Your task to perform on an android device: change the clock display to show seconds Image 0: 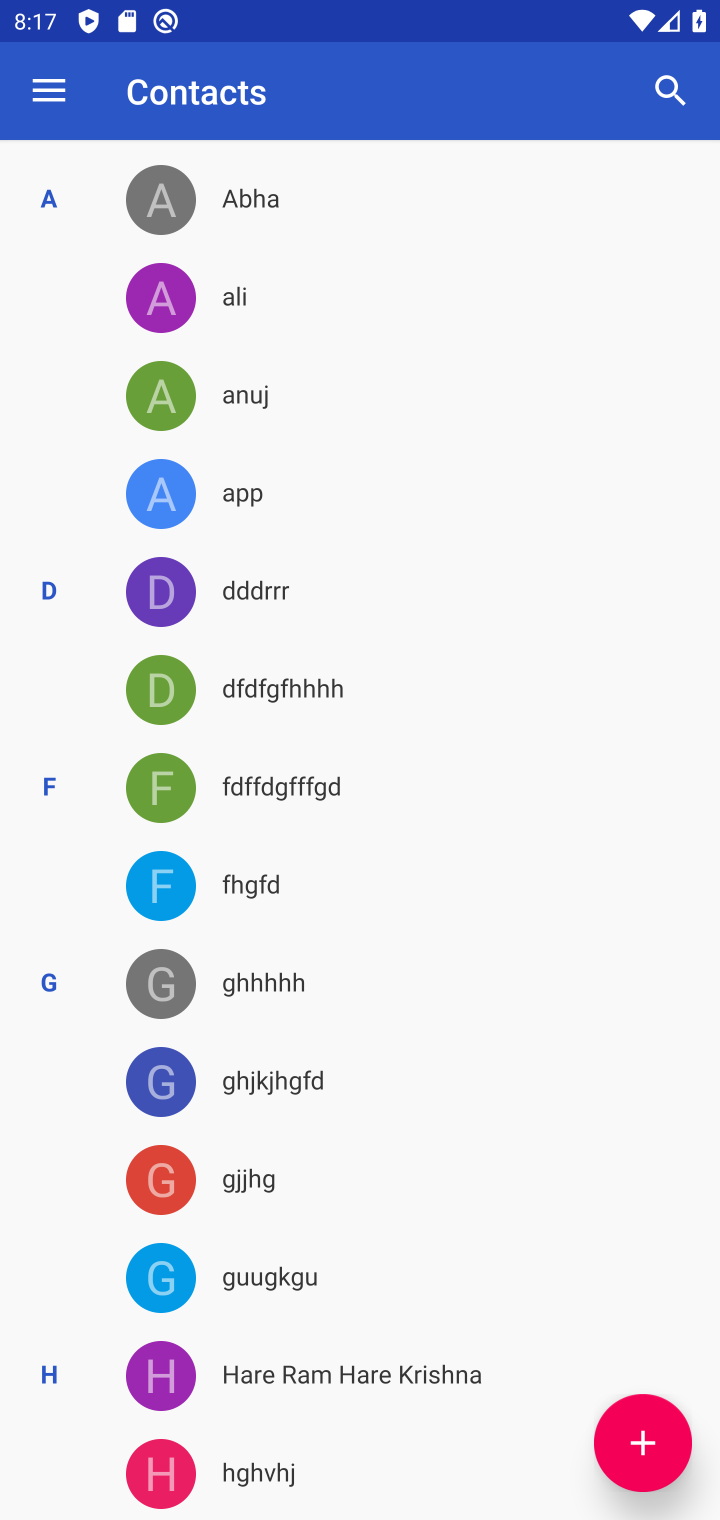
Step 0: press home button
Your task to perform on an android device: change the clock display to show seconds Image 1: 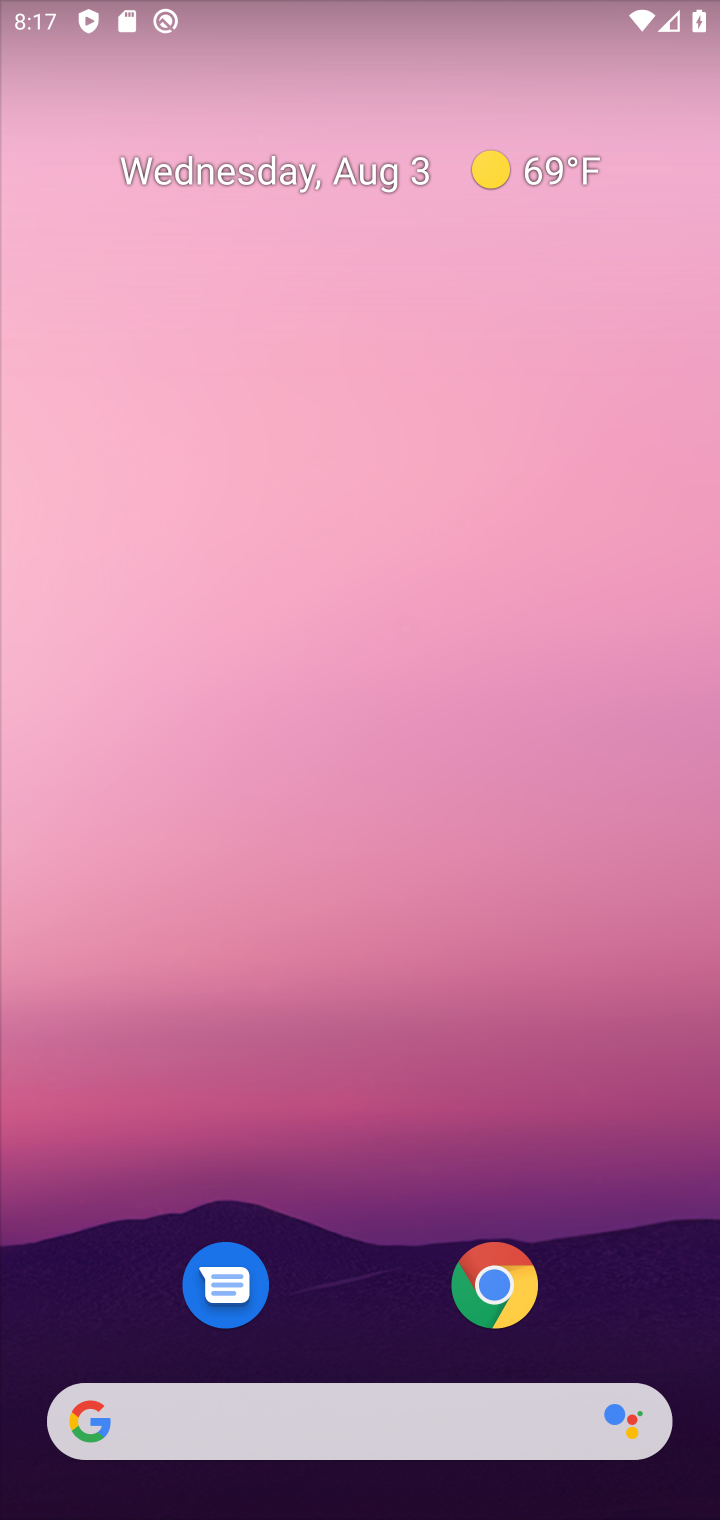
Step 1: drag from (624, 1288) to (587, 364)
Your task to perform on an android device: change the clock display to show seconds Image 2: 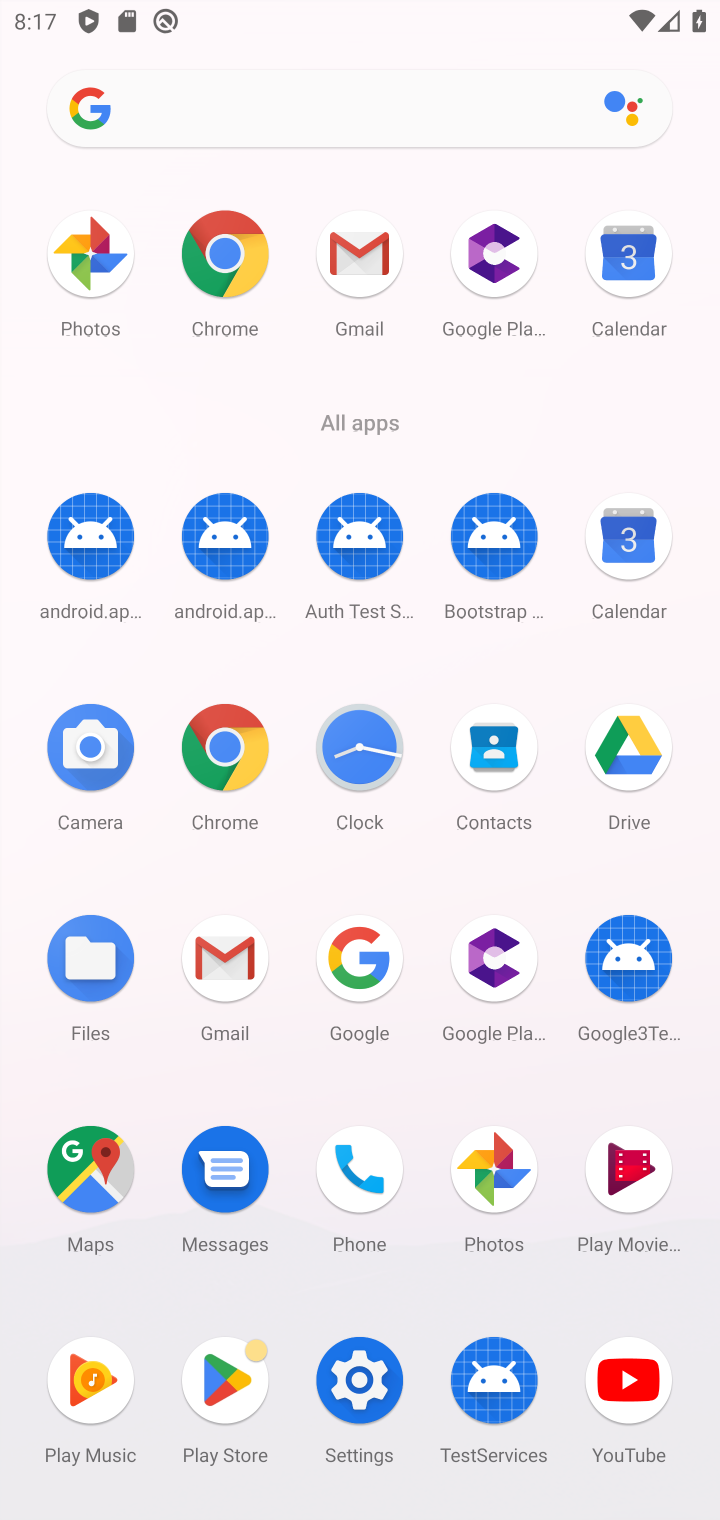
Step 2: click (371, 756)
Your task to perform on an android device: change the clock display to show seconds Image 3: 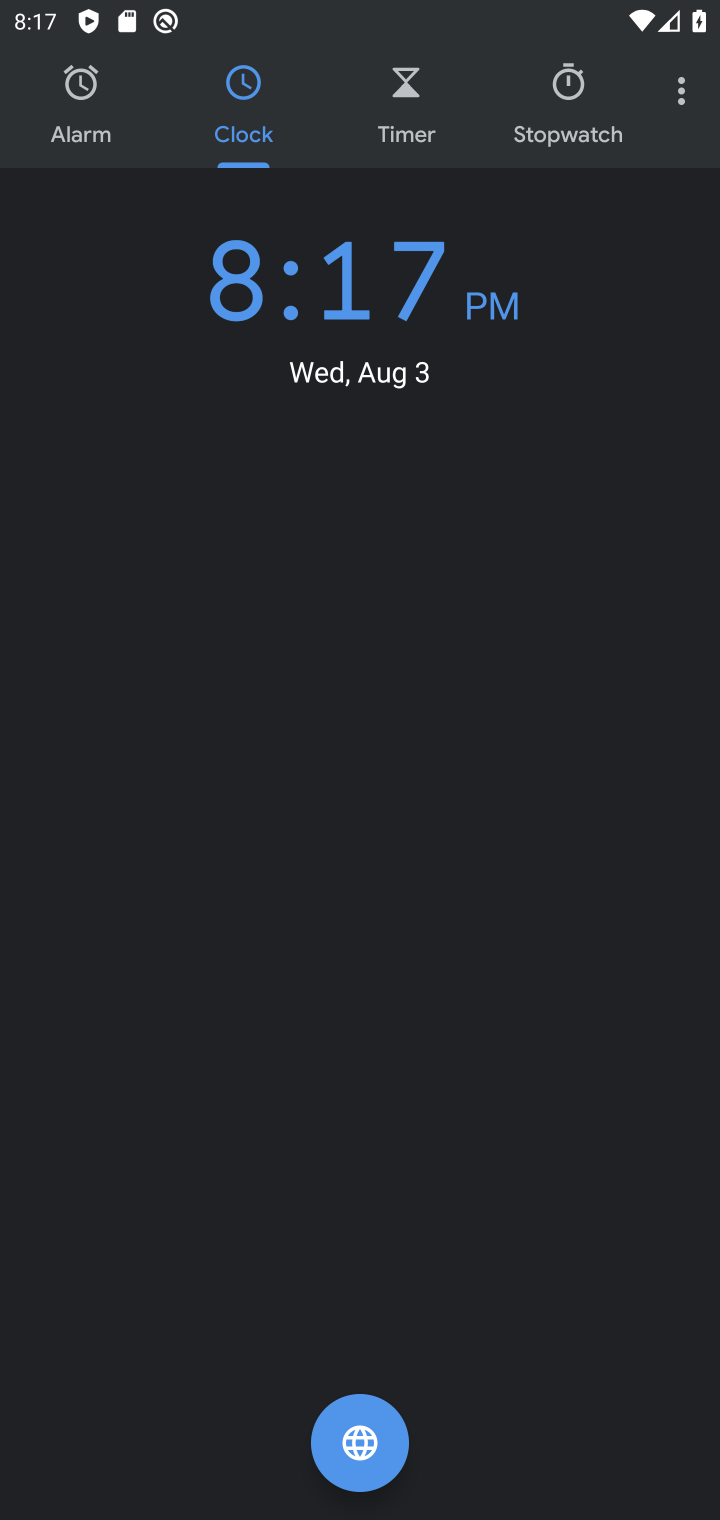
Step 3: click (667, 89)
Your task to perform on an android device: change the clock display to show seconds Image 4: 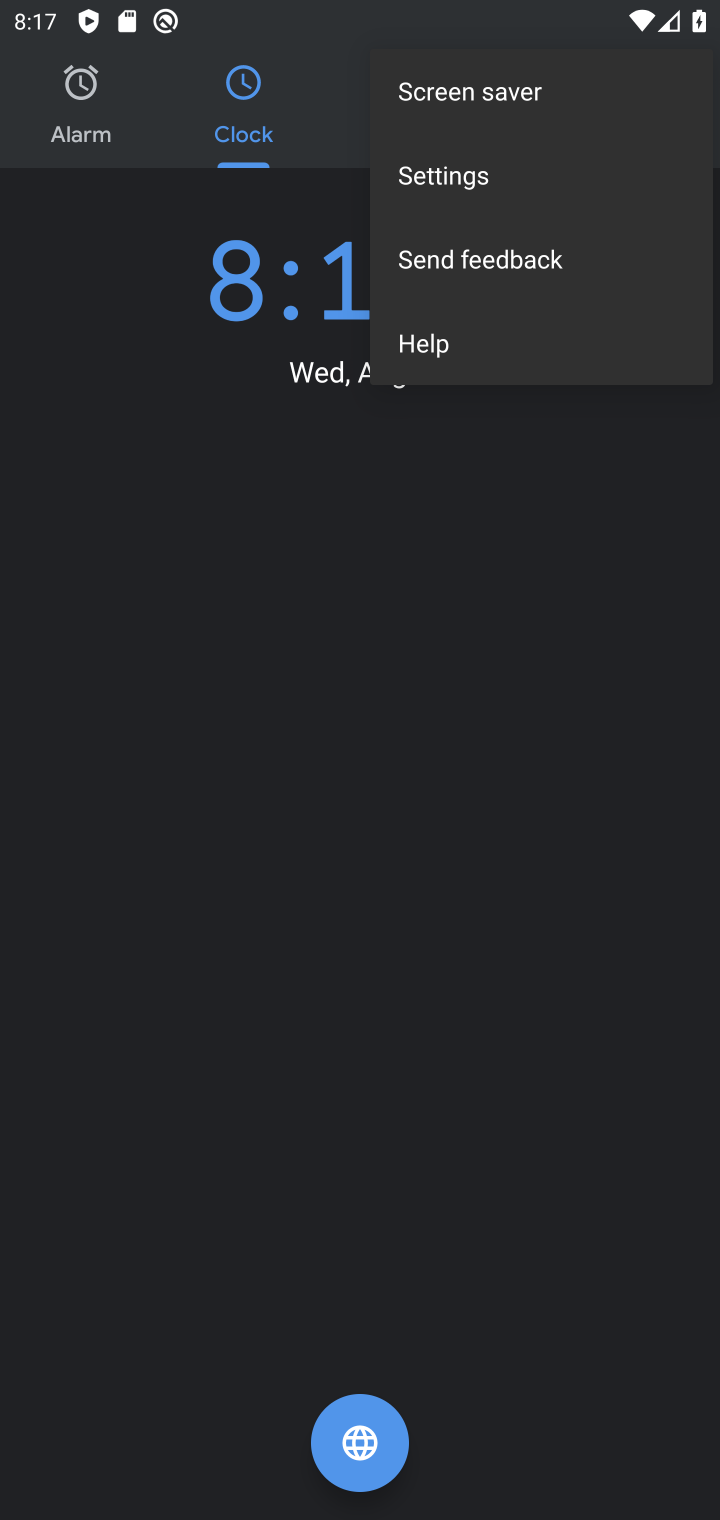
Step 4: click (493, 169)
Your task to perform on an android device: change the clock display to show seconds Image 5: 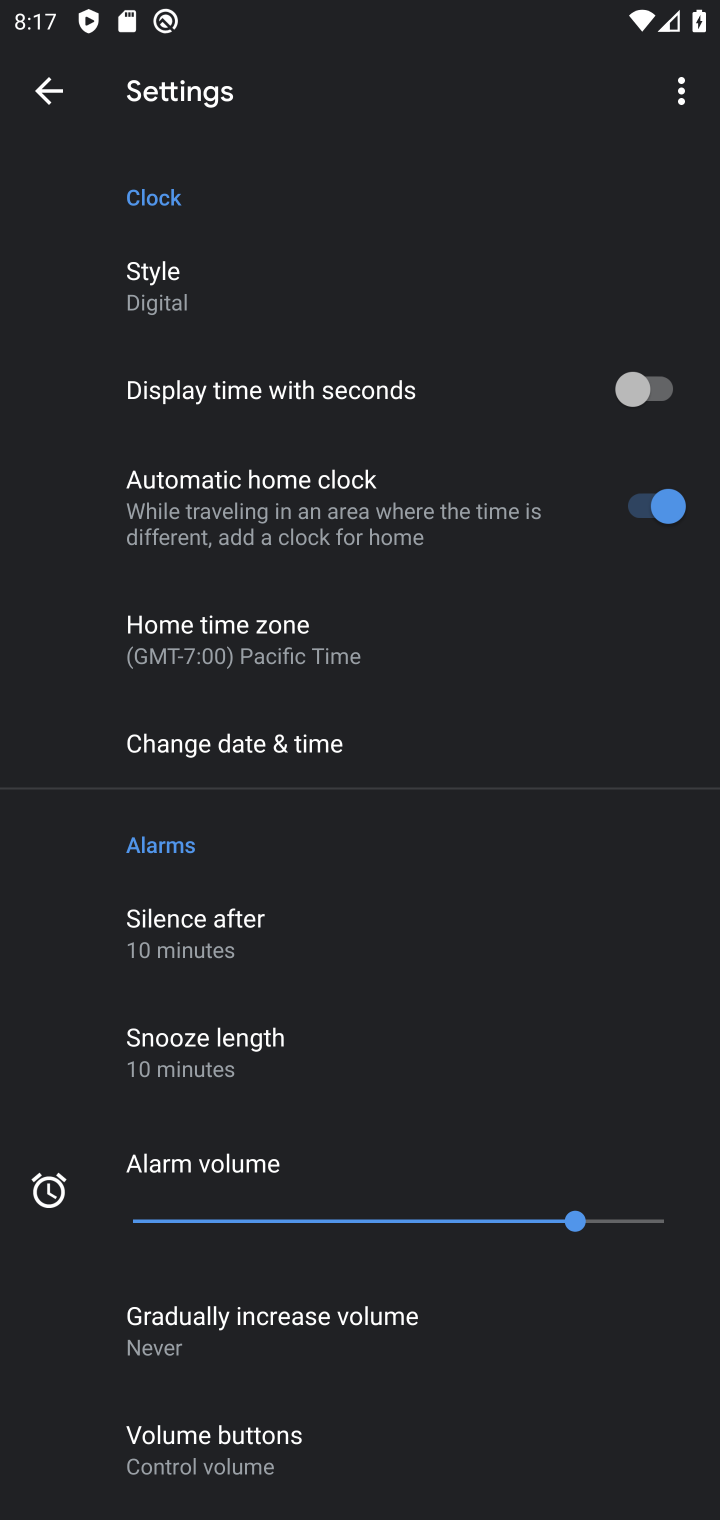
Step 5: click (649, 394)
Your task to perform on an android device: change the clock display to show seconds Image 6: 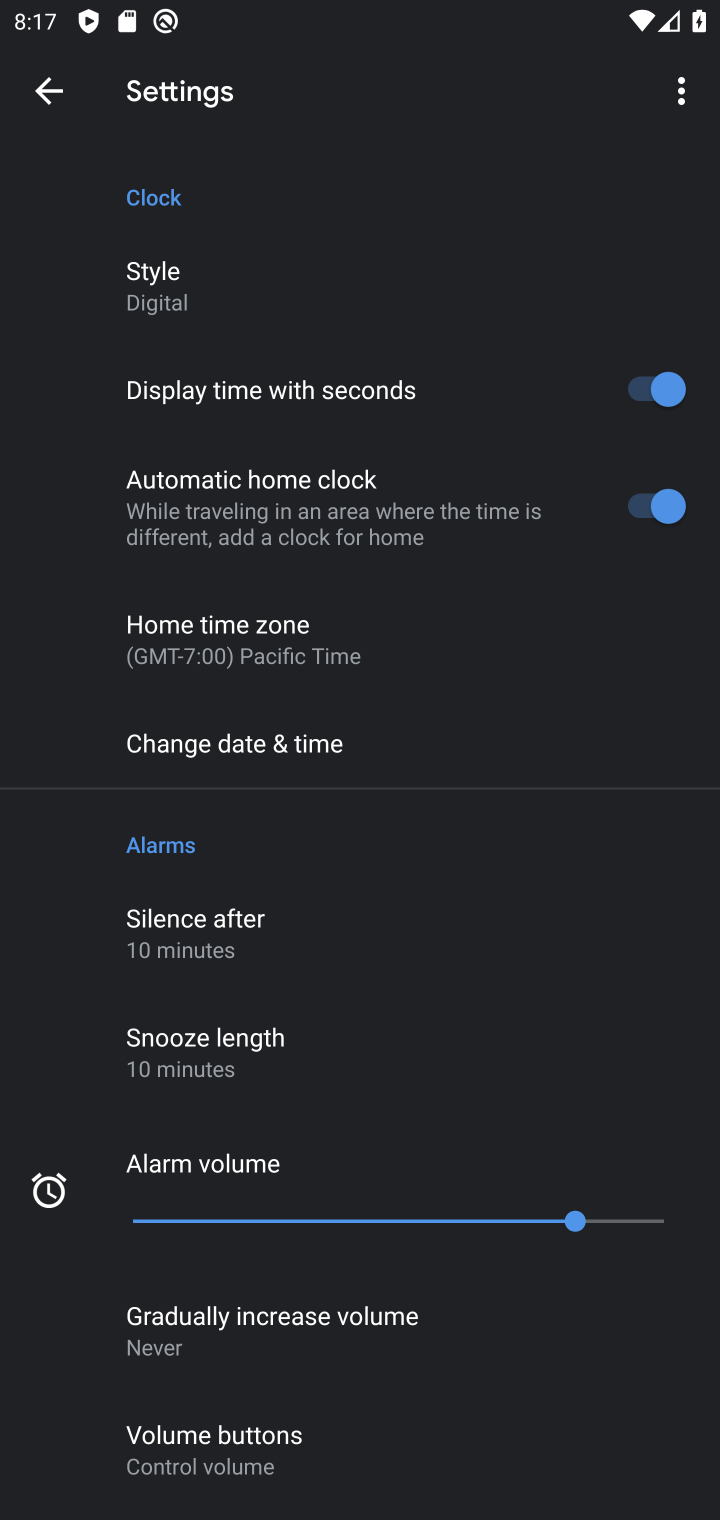
Step 6: task complete